Your task to perform on an android device: What's on my calendar today? Image 0: 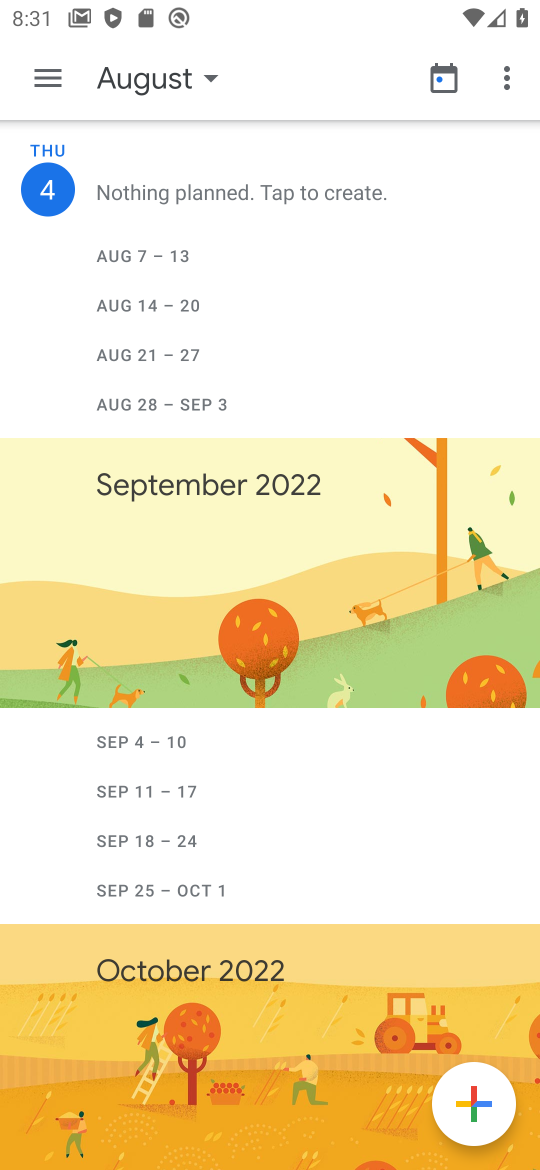
Step 0: click (210, 77)
Your task to perform on an android device: What's on my calendar today? Image 1: 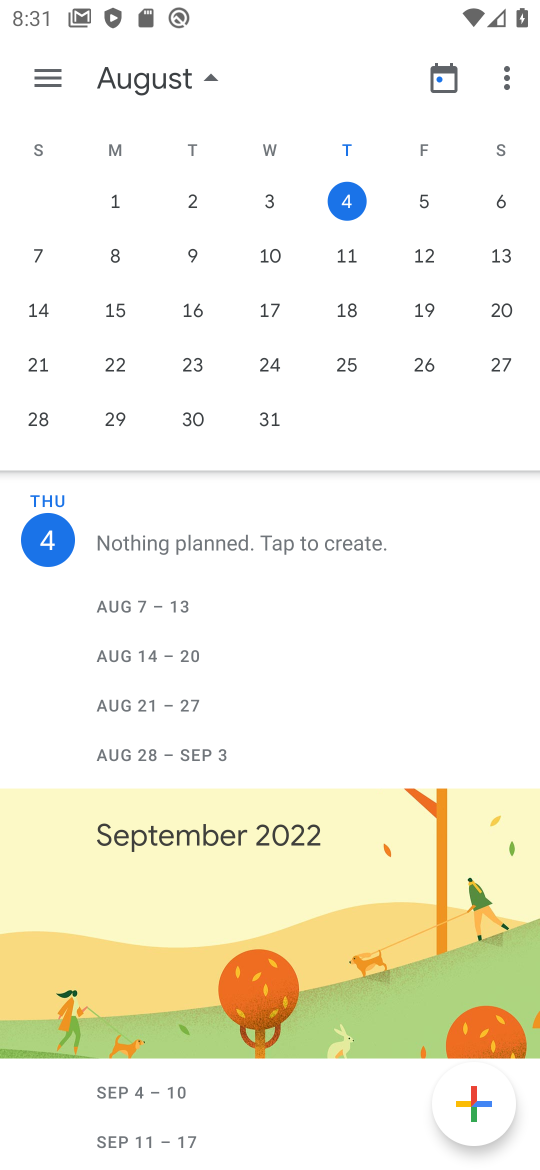
Step 1: click (350, 197)
Your task to perform on an android device: What's on my calendar today? Image 2: 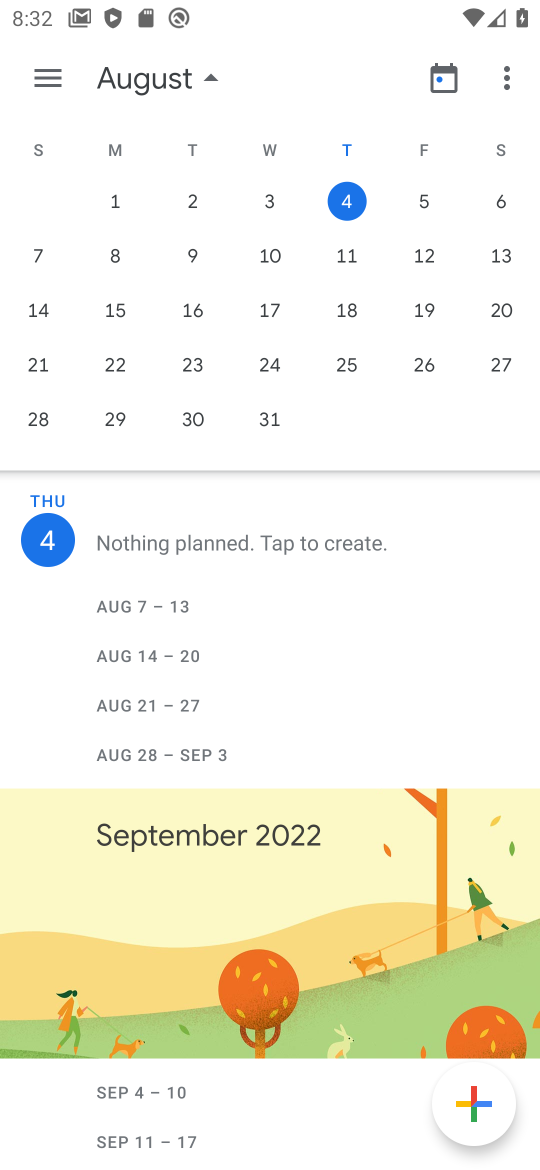
Step 2: task complete